Your task to perform on an android device: turn on notifications settings in the gmail app Image 0: 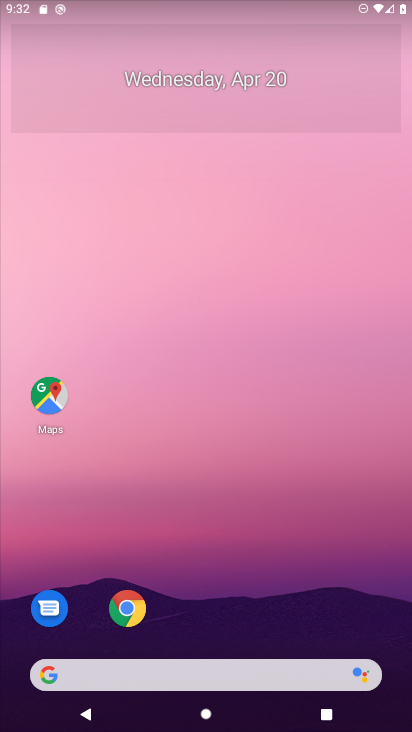
Step 0: drag from (197, 561) to (286, 13)
Your task to perform on an android device: turn on notifications settings in the gmail app Image 1: 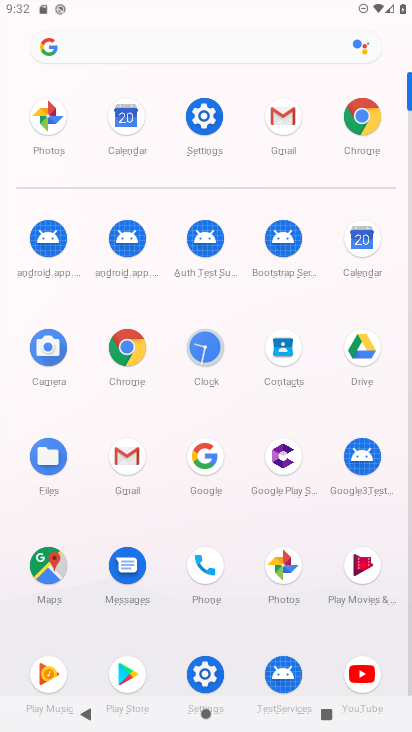
Step 1: click (136, 463)
Your task to perform on an android device: turn on notifications settings in the gmail app Image 2: 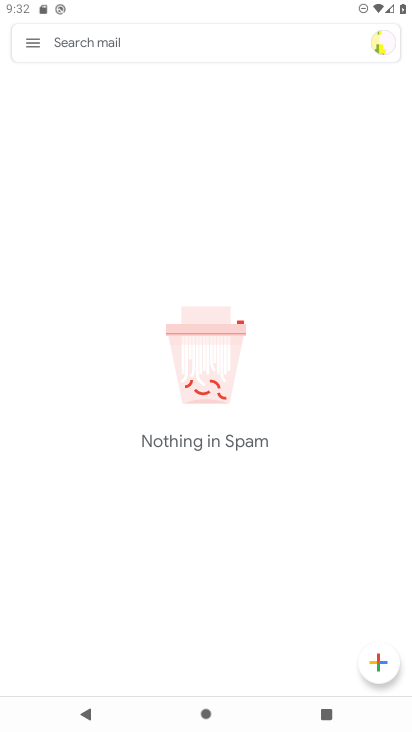
Step 2: click (34, 49)
Your task to perform on an android device: turn on notifications settings in the gmail app Image 3: 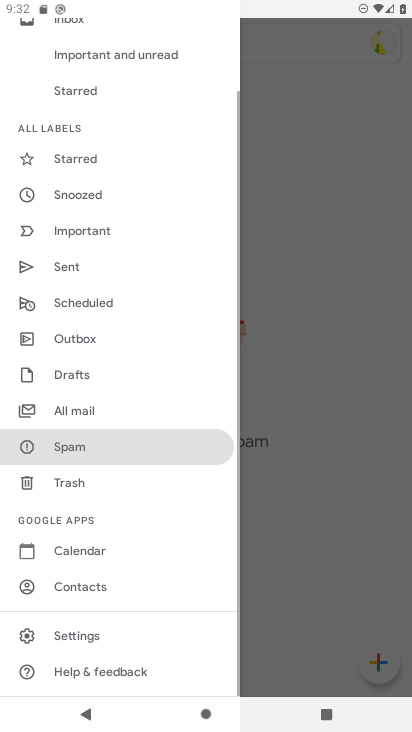
Step 3: drag from (83, 633) to (131, 366)
Your task to perform on an android device: turn on notifications settings in the gmail app Image 4: 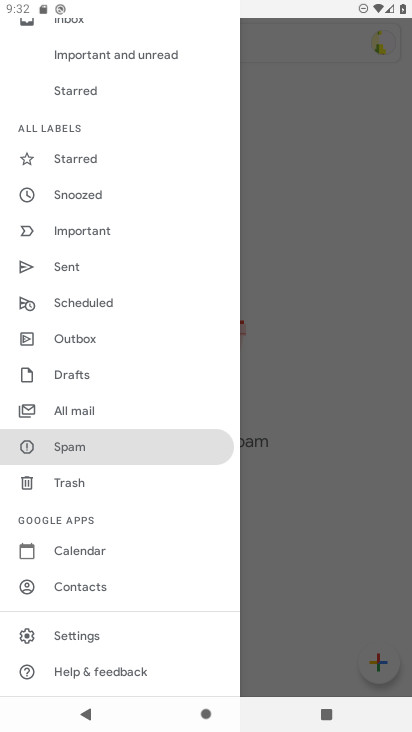
Step 4: click (80, 635)
Your task to perform on an android device: turn on notifications settings in the gmail app Image 5: 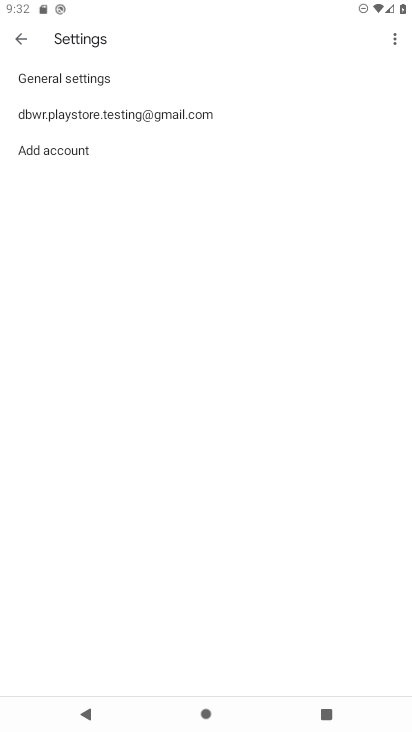
Step 5: click (82, 83)
Your task to perform on an android device: turn on notifications settings in the gmail app Image 6: 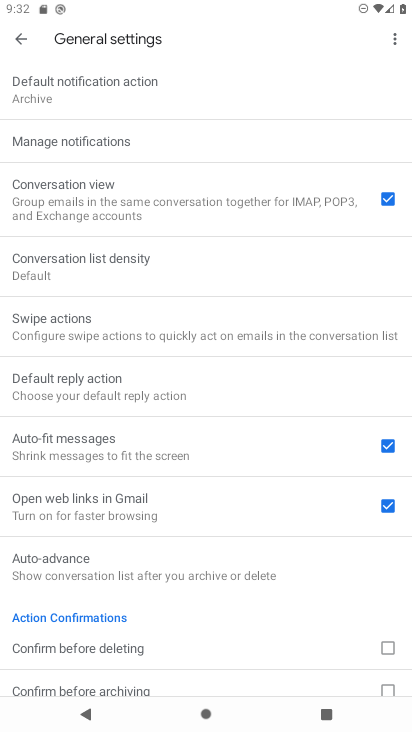
Step 6: click (92, 143)
Your task to perform on an android device: turn on notifications settings in the gmail app Image 7: 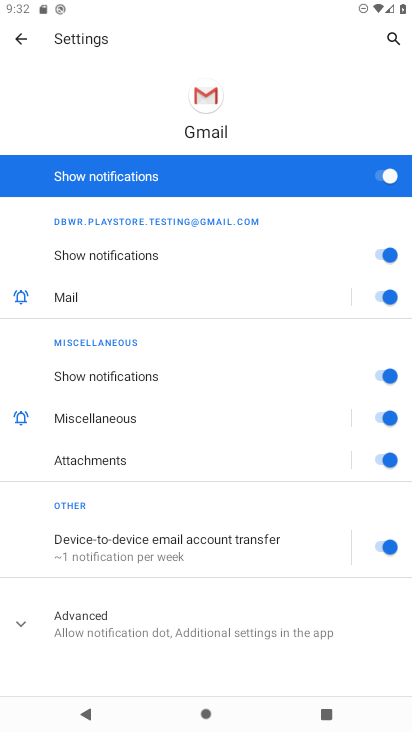
Step 7: task complete